Your task to perform on an android device: Open Google Chrome and open the bookmarks view Image 0: 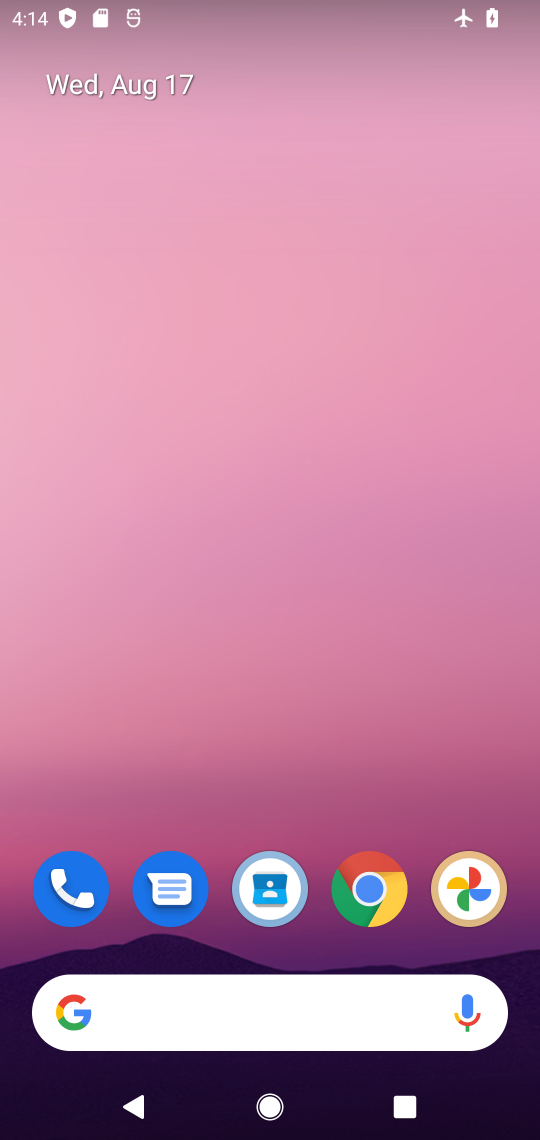
Step 0: click (374, 893)
Your task to perform on an android device: Open Google Chrome and open the bookmarks view Image 1: 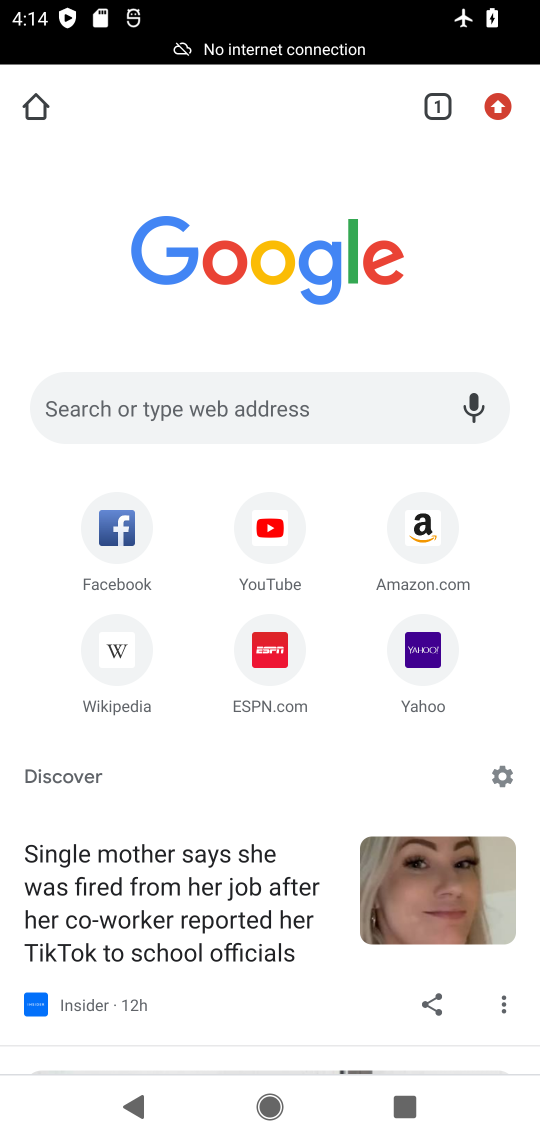
Step 1: click (502, 99)
Your task to perform on an android device: Open Google Chrome and open the bookmarks view Image 2: 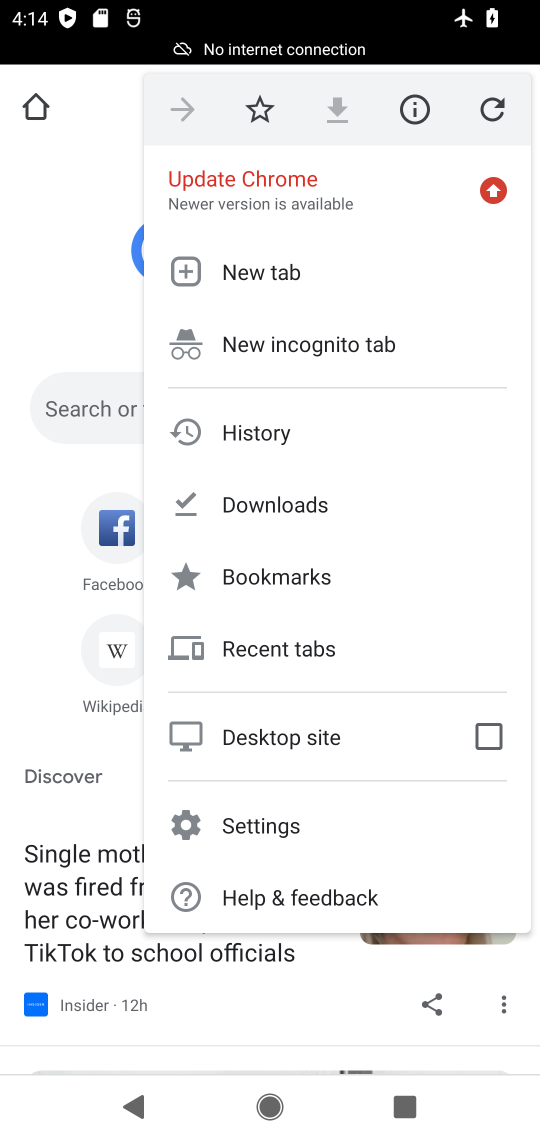
Step 2: click (280, 571)
Your task to perform on an android device: Open Google Chrome and open the bookmarks view Image 3: 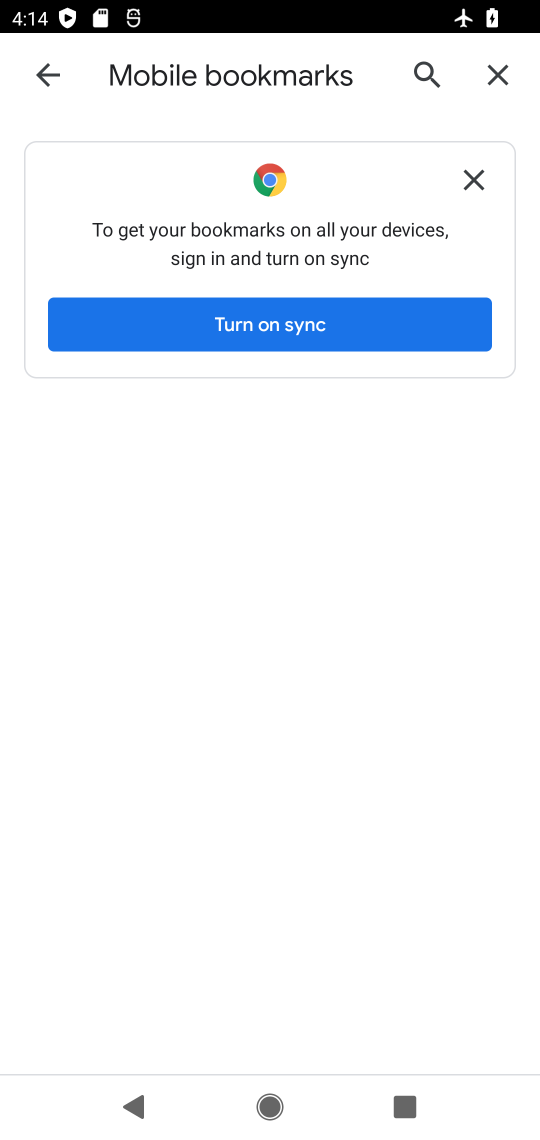
Step 3: click (477, 185)
Your task to perform on an android device: Open Google Chrome and open the bookmarks view Image 4: 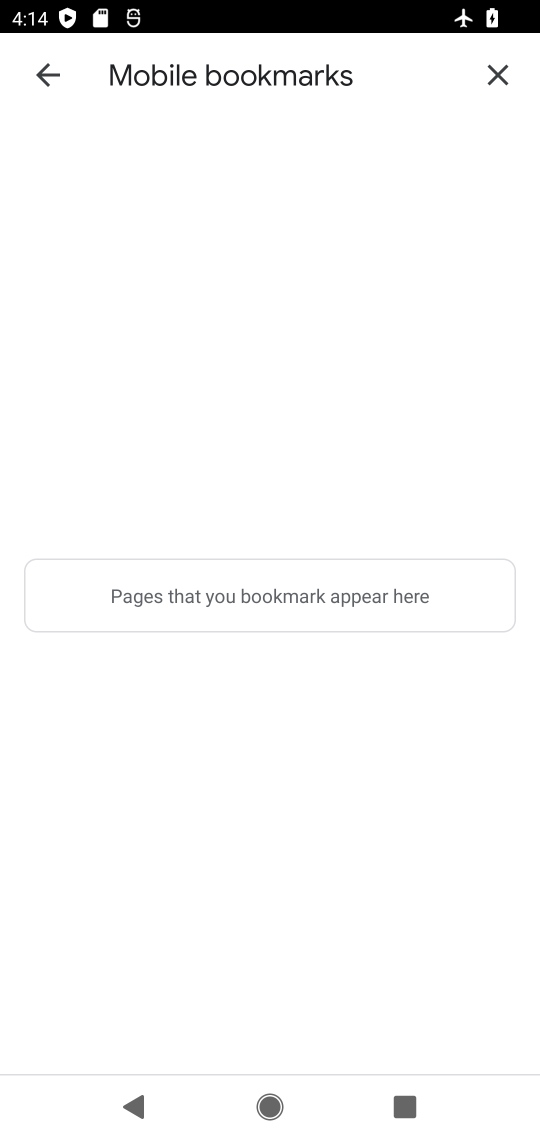
Step 4: task complete